Your task to perform on an android device: set the stopwatch Image 0: 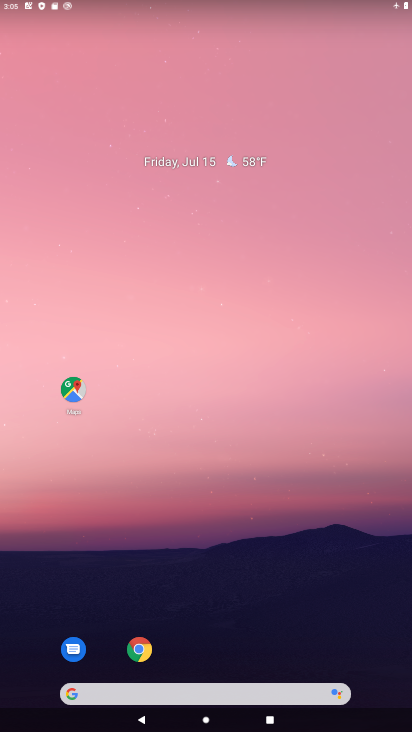
Step 0: drag from (235, 729) to (242, 256)
Your task to perform on an android device: set the stopwatch Image 1: 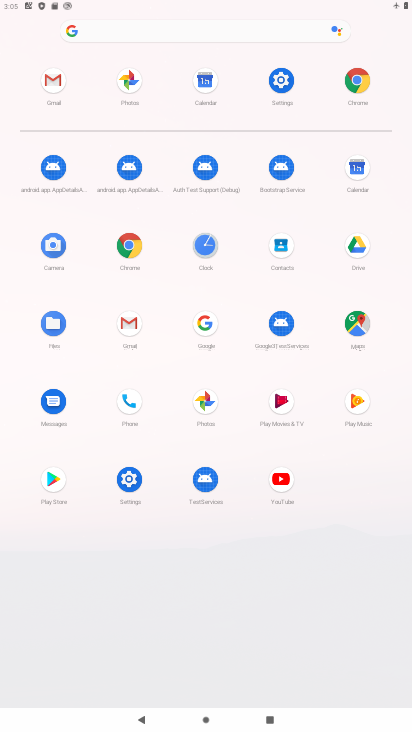
Step 1: click (205, 243)
Your task to perform on an android device: set the stopwatch Image 2: 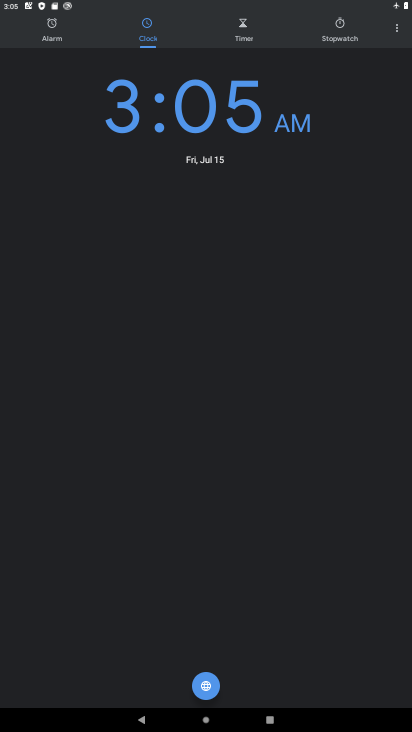
Step 2: click (342, 28)
Your task to perform on an android device: set the stopwatch Image 3: 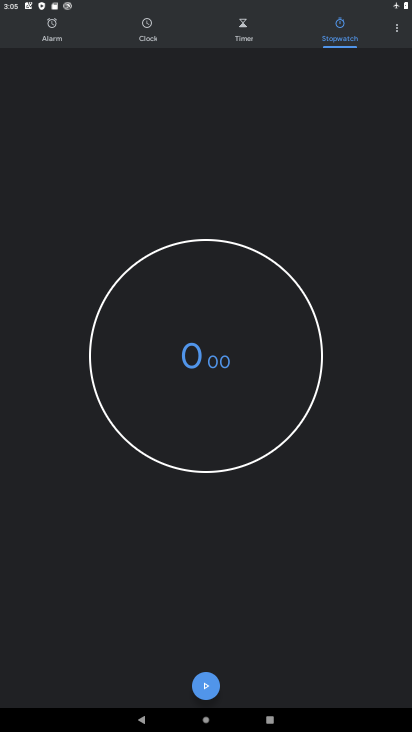
Step 3: task complete